Your task to perform on an android device: View the shopping cart on ebay. Image 0: 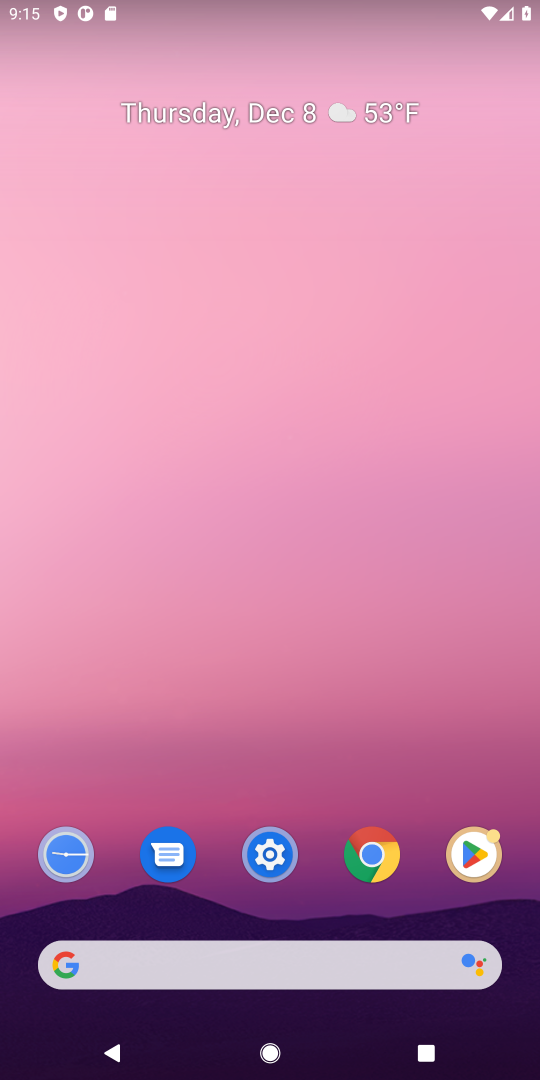
Step 0: press home button
Your task to perform on an android device: View the shopping cart on ebay. Image 1: 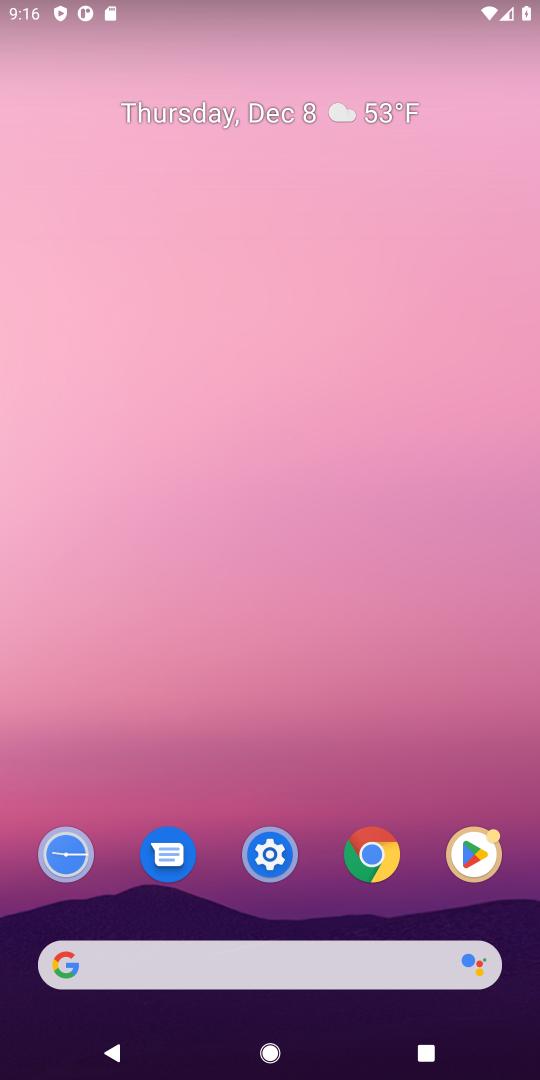
Step 1: click (121, 956)
Your task to perform on an android device: View the shopping cart on ebay. Image 2: 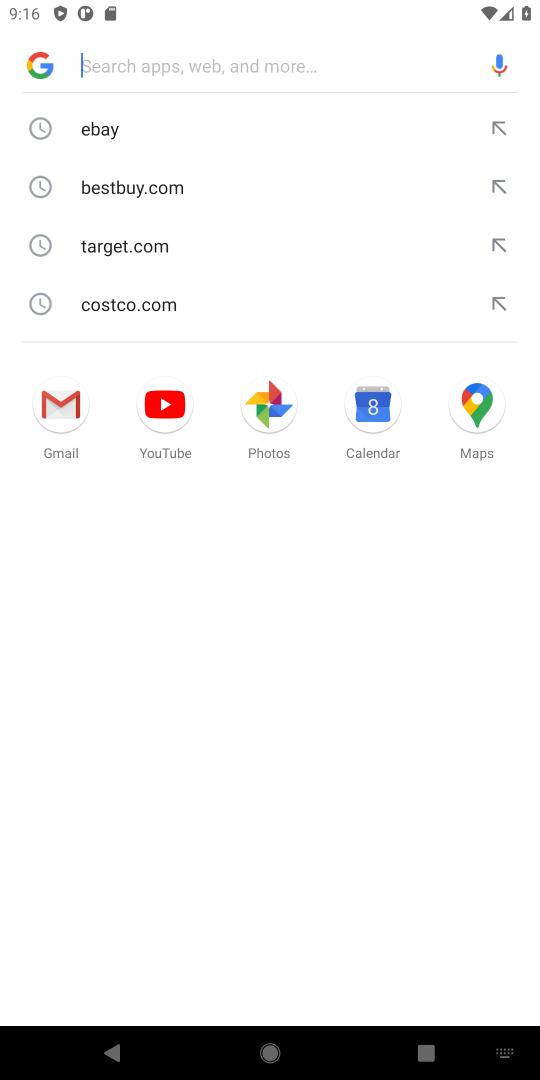
Step 2: click (102, 128)
Your task to perform on an android device: View the shopping cart on ebay. Image 3: 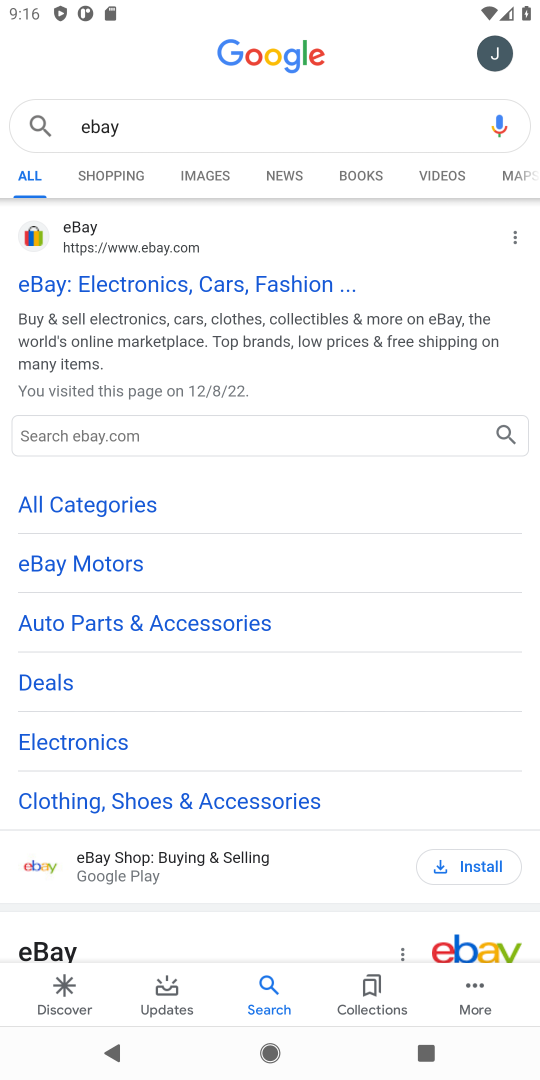
Step 3: click (172, 279)
Your task to perform on an android device: View the shopping cart on ebay. Image 4: 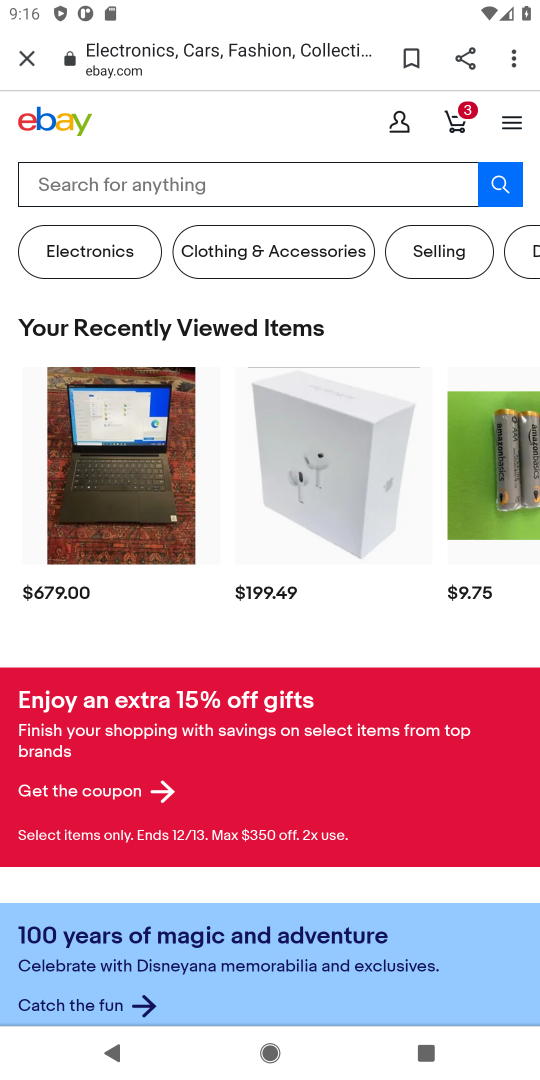
Step 4: click (454, 104)
Your task to perform on an android device: View the shopping cart on ebay. Image 5: 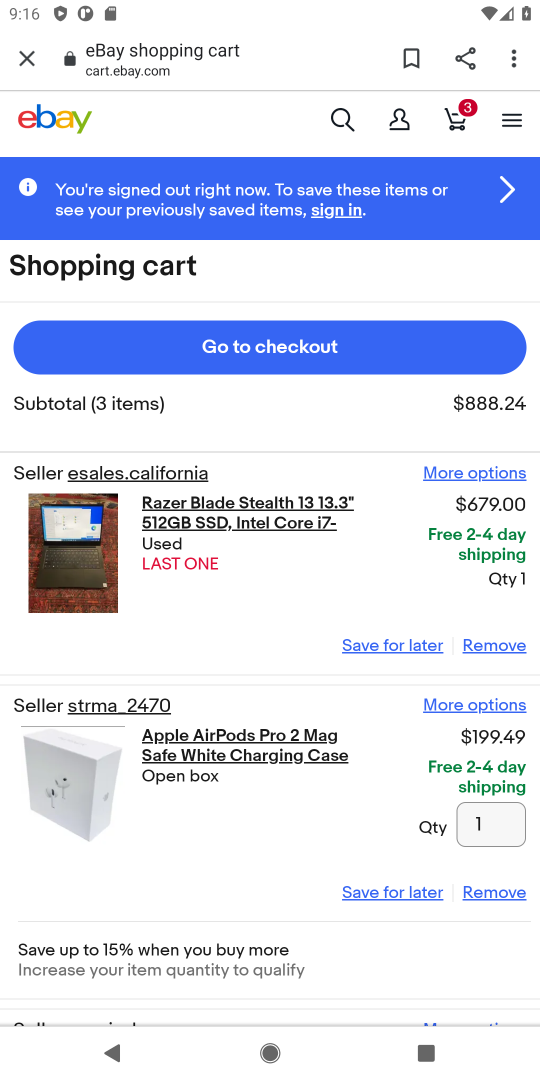
Step 5: task complete